Your task to perform on an android device: Open Maps and search for coffee Image 0: 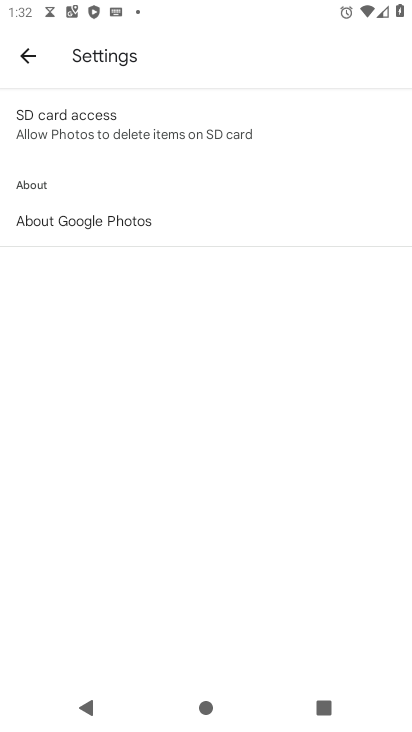
Step 0: press home button
Your task to perform on an android device: Open Maps and search for coffee Image 1: 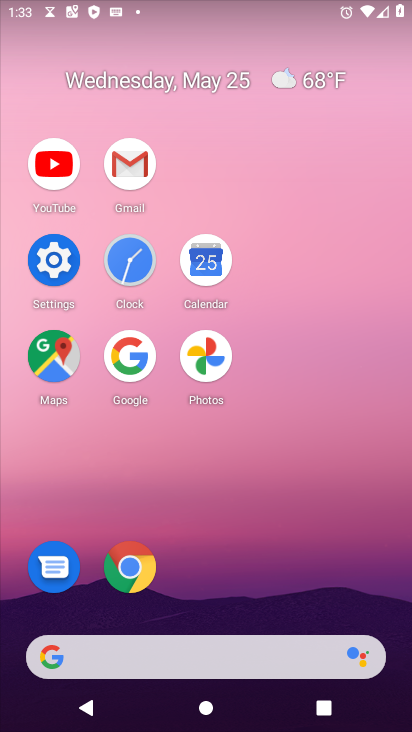
Step 1: click (64, 354)
Your task to perform on an android device: Open Maps and search for coffee Image 2: 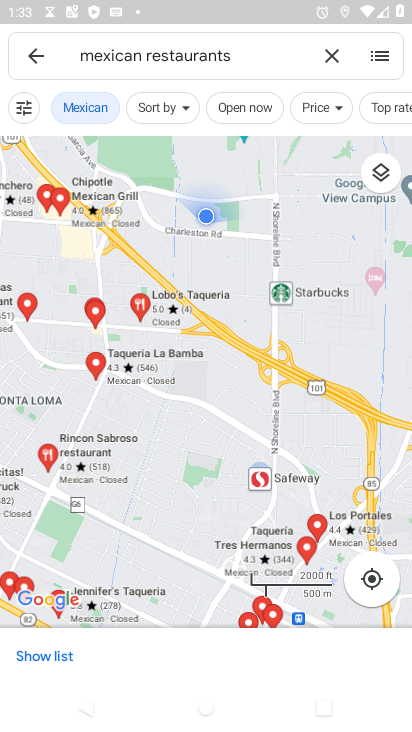
Step 2: click (322, 54)
Your task to perform on an android device: Open Maps and search for coffee Image 3: 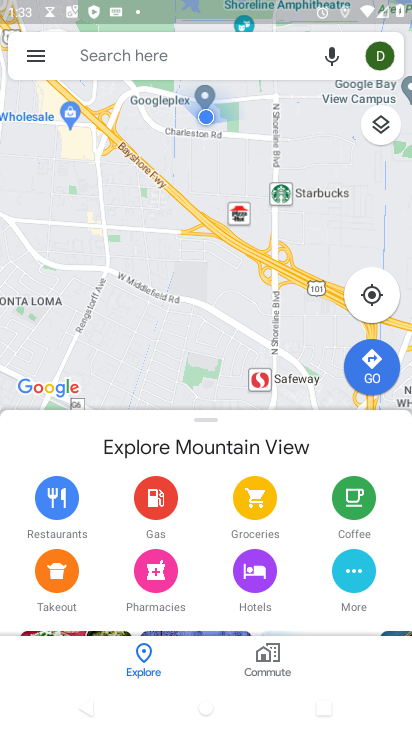
Step 3: click (185, 65)
Your task to perform on an android device: Open Maps and search for coffee Image 4: 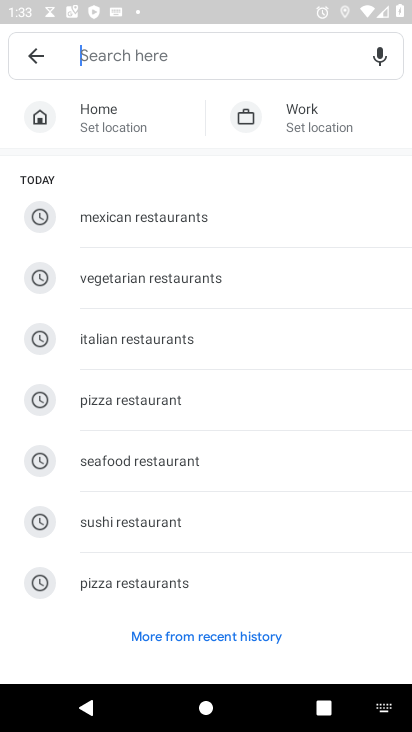
Step 4: type "coffee"
Your task to perform on an android device: Open Maps and search for coffee Image 5: 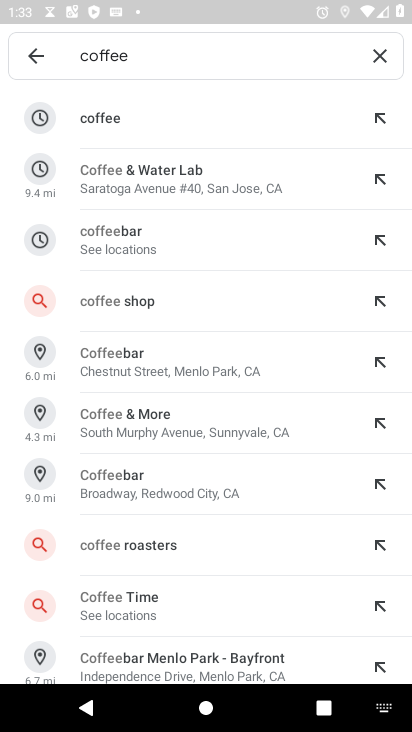
Step 5: task complete